Your task to perform on an android device: set the timer Image 0: 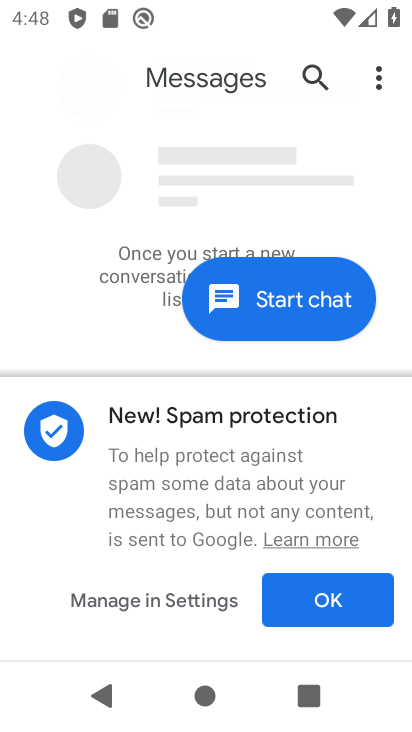
Step 0: press home button
Your task to perform on an android device: set the timer Image 1: 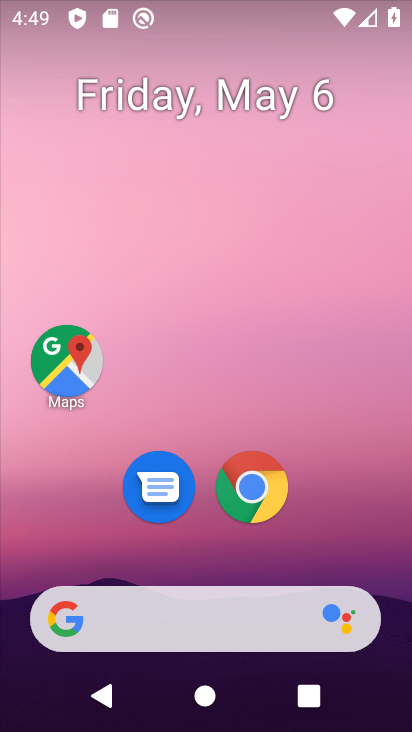
Step 1: drag from (275, 341) to (194, 1)
Your task to perform on an android device: set the timer Image 2: 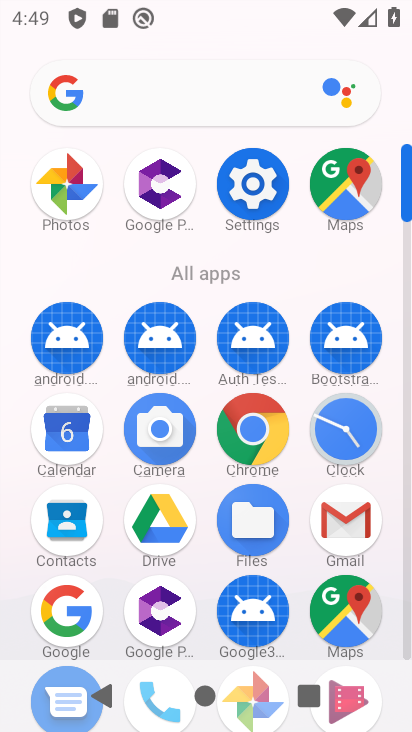
Step 2: click (343, 428)
Your task to perform on an android device: set the timer Image 3: 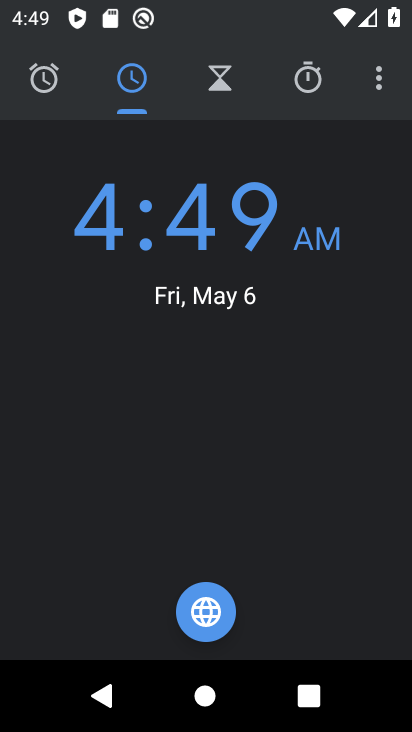
Step 3: click (224, 86)
Your task to perform on an android device: set the timer Image 4: 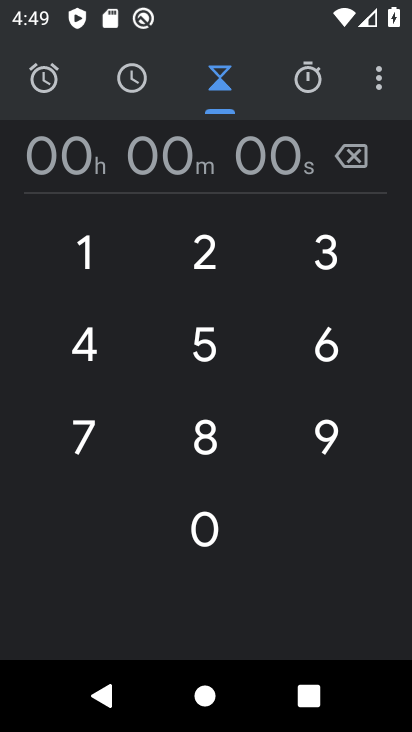
Step 4: type "123"
Your task to perform on an android device: set the timer Image 5: 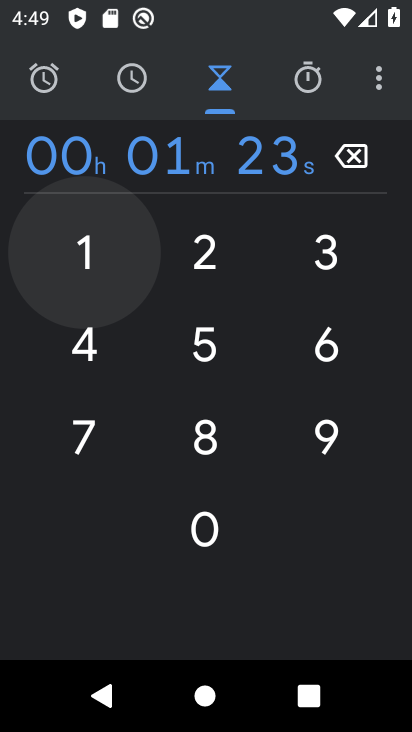
Step 5: type ""
Your task to perform on an android device: set the timer Image 6: 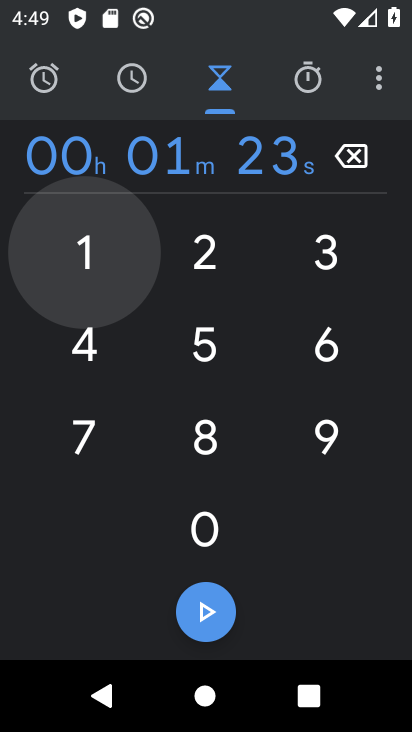
Step 6: click (207, 623)
Your task to perform on an android device: set the timer Image 7: 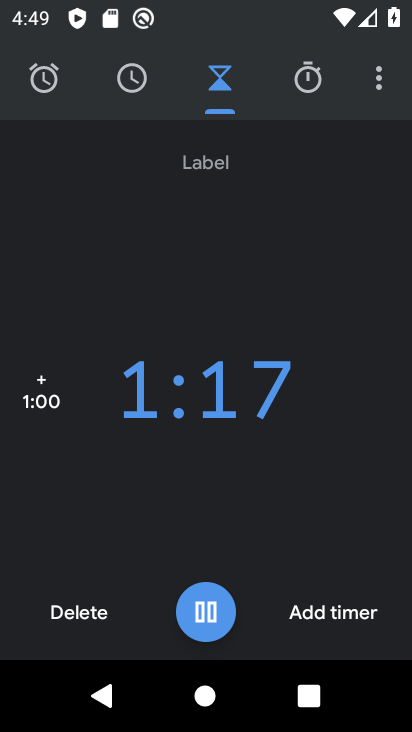
Step 7: click (205, 611)
Your task to perform on an android device: set the timer Image 8: 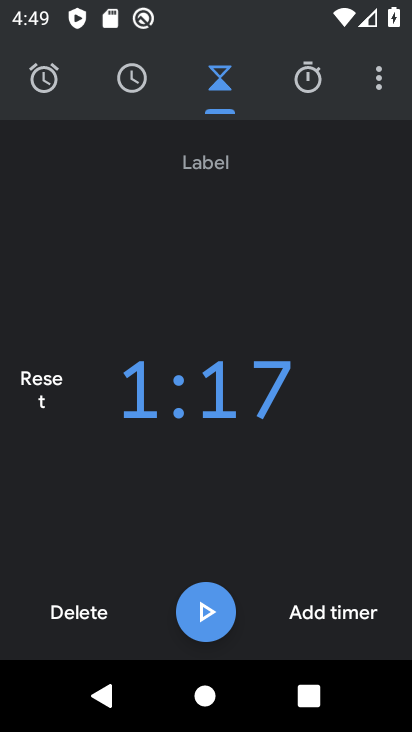
Step 8: task complete